Your task to perform on an android device: turn smart compose on in the gmail app Image 0: 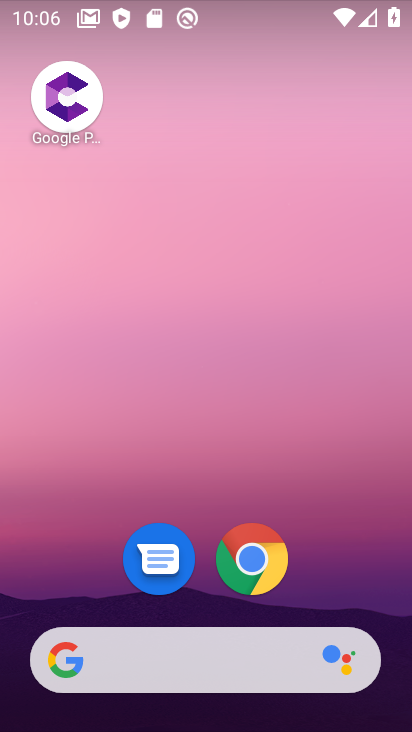
Step 0: drag from (382, 585) to (325, 19)
Your task to perform on an android device: turn smart compose on in the gmail app Image 1: 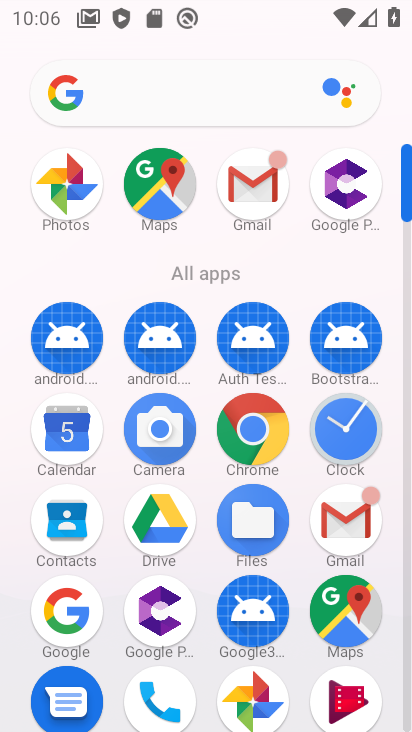
Step 1: click (248, 217)
Your task to perform on an android device: turn smart compose on in the gmail app Image 2: 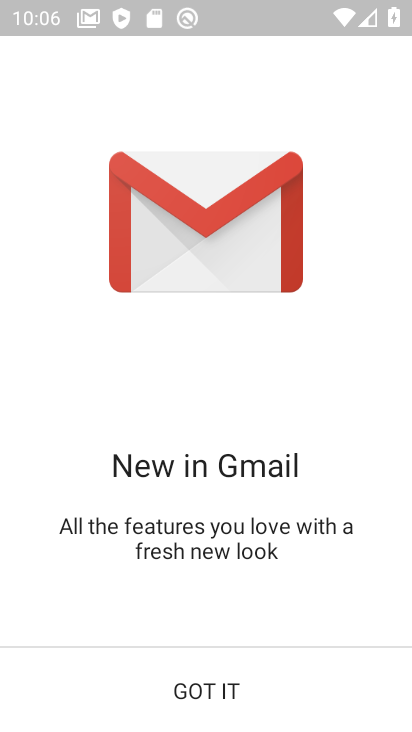
Step 2: click (242, 701)
Your task to perform on an android device: turn smart compose on in the gmail app Image 3: 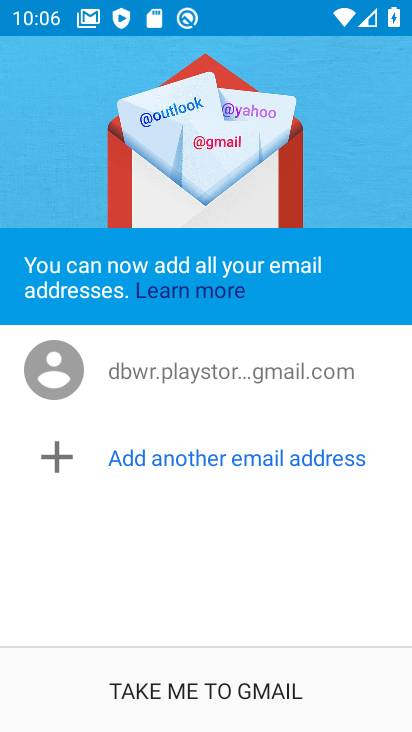
Step 3: click (242, 701)
Your task to perform on an android device: turn smart compose on in the gmail app Image 4: 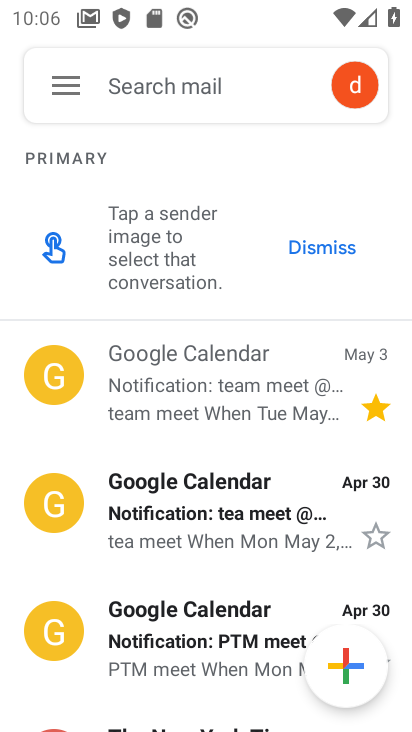
Step 4: click (45, 82)
Your task to perform on an android device: turn smart compose on in the gmail app Image 5: 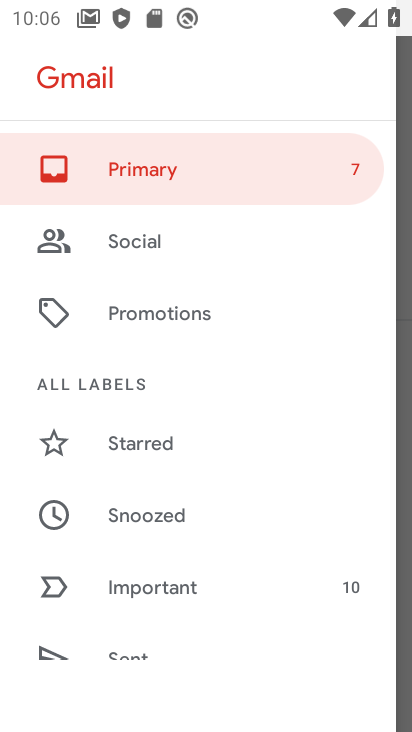
Step 5: drag from (226, 603) to (228, 150)
Your task to perform on an android device: turn smart compose on in the gmail app Image 6: 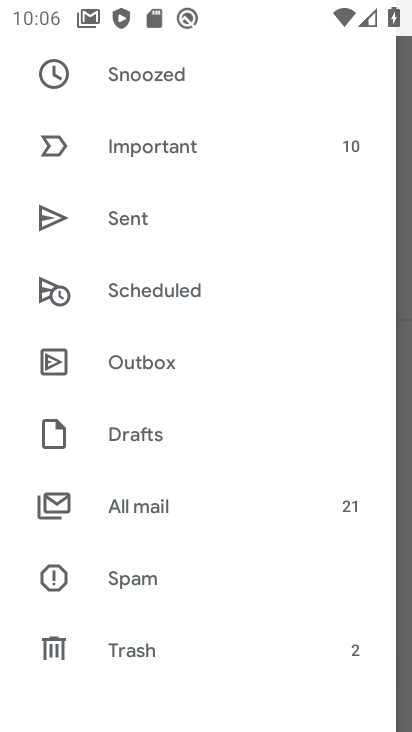
Step 6: drag from (280, 598) to (255, 211)
Your task to perform on an android device: turn smart compose on in the gmail app Image 7: 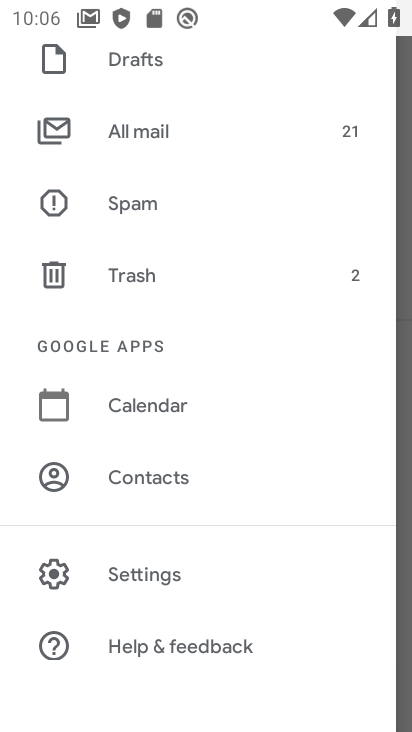
Step 7: click (293, 569)
Your task to perform on an android device: turn smart compose on in the gmail app Image 8: 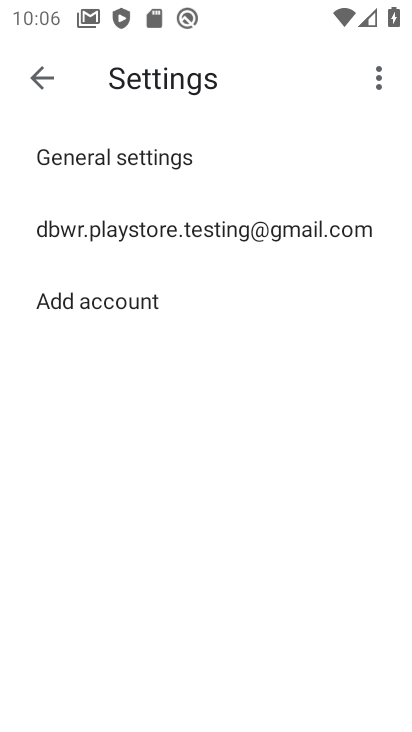
Step 8: click (234, 247)
Your task to perform on an android device: turn smart compose on in the gmail app Image 9: 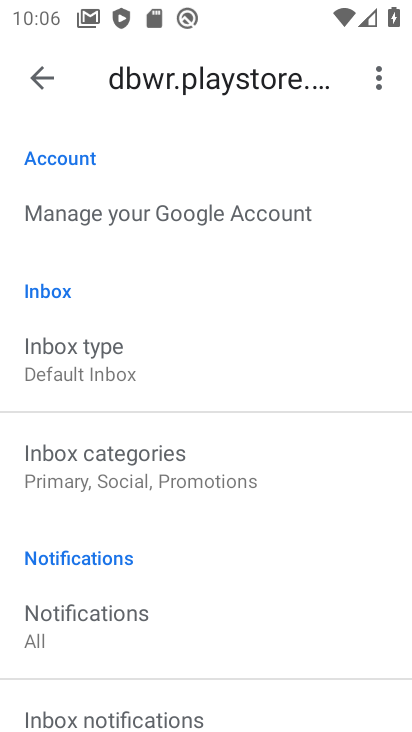
Step 9: task complete